Your task to perform on an android device: change the clock display to analog Image 0: 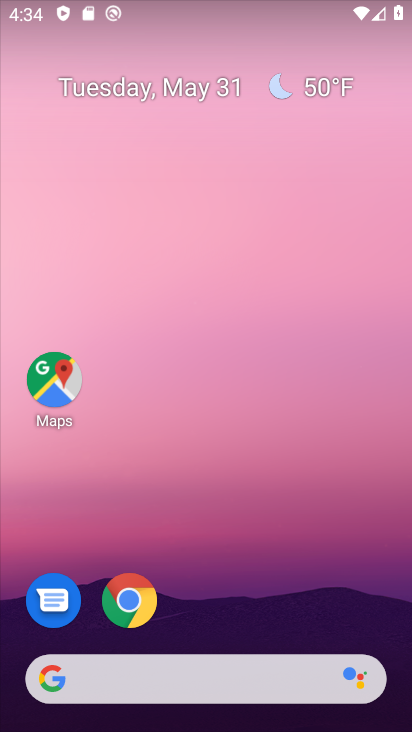
Step 0: drag from (293, 596) to (247, 144)
Your task to perform on an android device: change the clock display to analog Image 1: 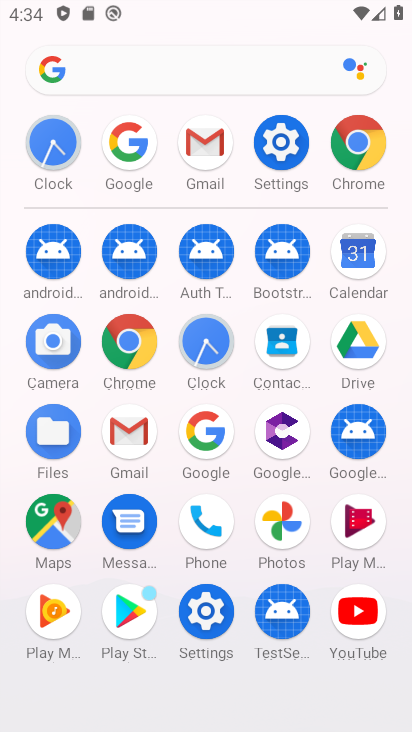
Step 1: click (57, 146)
Your task to perform on an android device: change the clock display to analog Image 2: 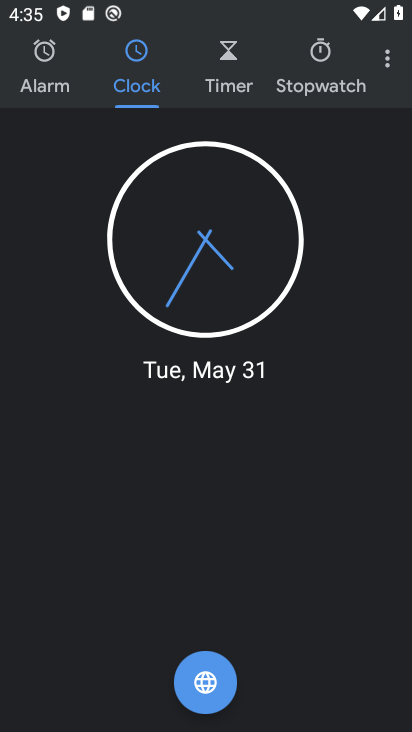
Step 2: click (389, 58)
Your task to perform on an android device: change the clock display to analog Image 3: 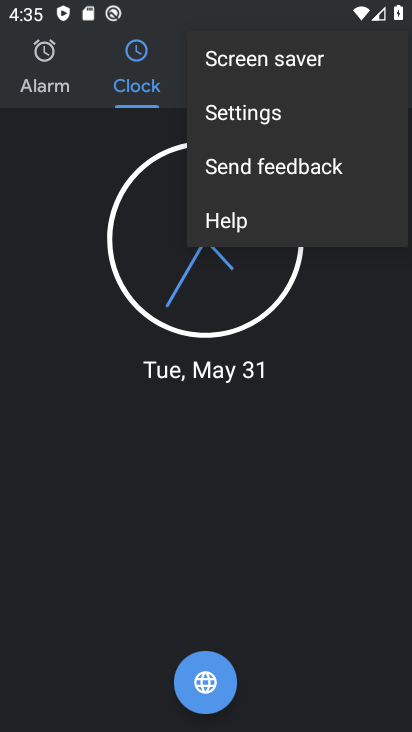
Step 3: click (265, 111)
Your task to perform on an android device: change the clock display to analog Image 4: 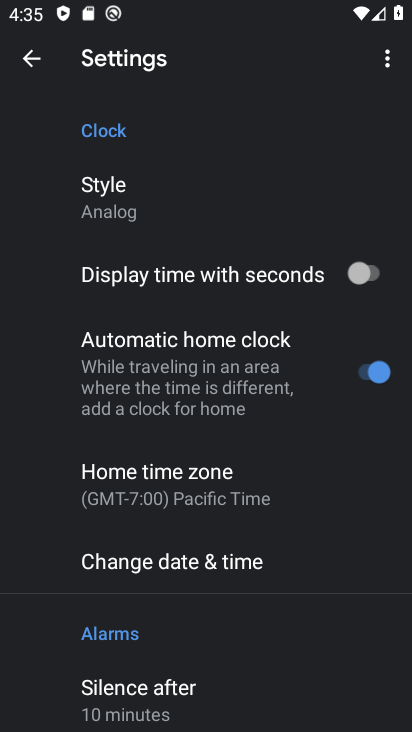
Step 4: click (131, 213)
Your task to perform on an android device: change the clock display to analog Image 5: 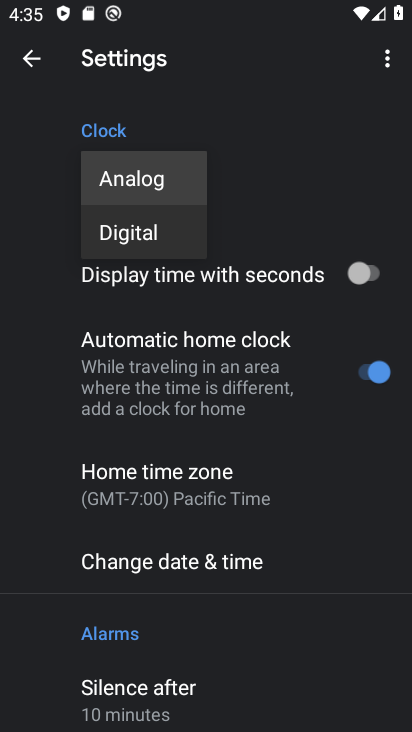
Step 5: click (147, 191)
Your task to perform on an android device: change the clock display to analog Image 6: 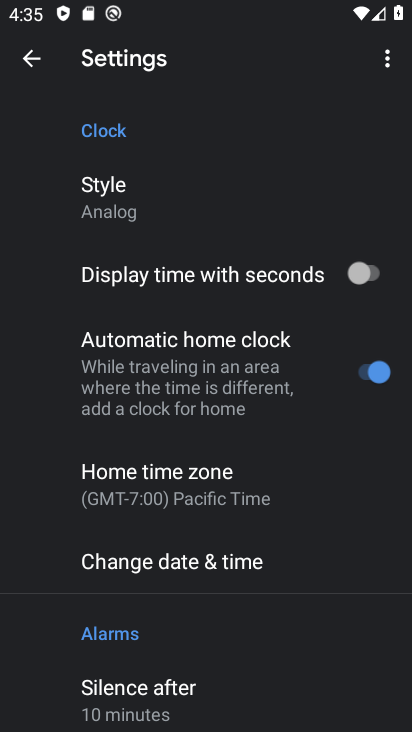
Step 6: task complete